Your task to perform on an android device: What's the weather going to be tomorrow? Image 0: 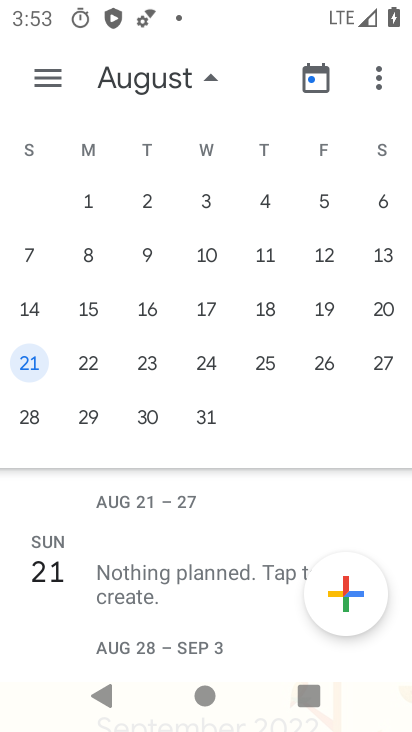
Step 0: press home button
Your task to perform on an android device: What's the weather going to be tomorrow? Image 1: 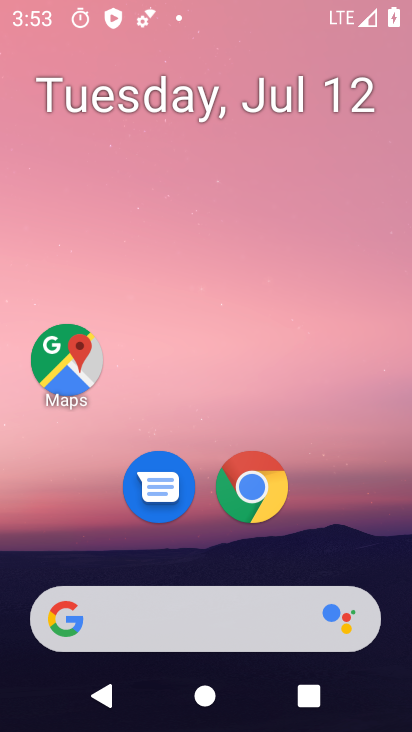
Step 1: drag from (216, 635) to (222, 172)
Your task to perform on an android device: What's the weather going to be tomorrow? Image 2: 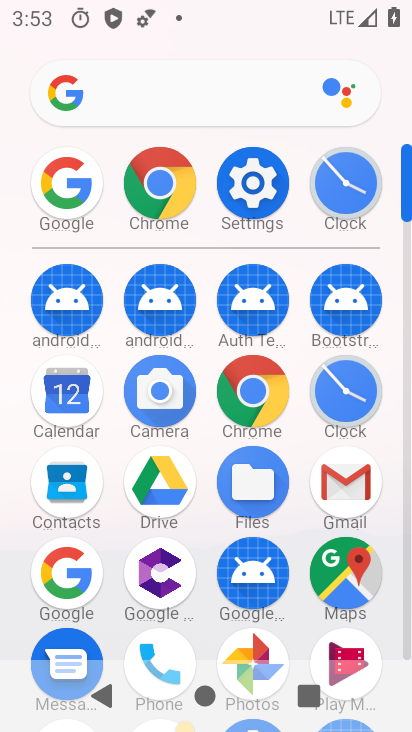
Step 2: drag from (197, 499) to (239, 188)
Your task to perform on an android device: What's the weather going to be tomorrow? Image 3: 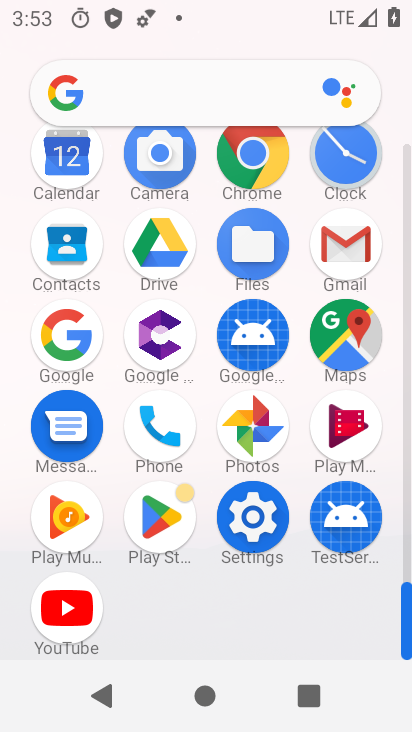
Step 3: drag from (204, 464) to (210, 201)
Your task to perform on an android device: What's the weather going to be tomorrow? Image 4: 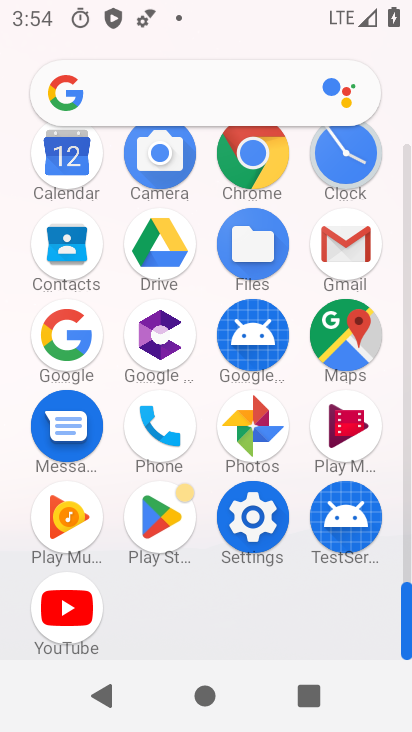
Step 4: drag from (224, 287) to (174, 534)
Your task to perform on an android device: What's the weather going to be tomorrow? Image 5: 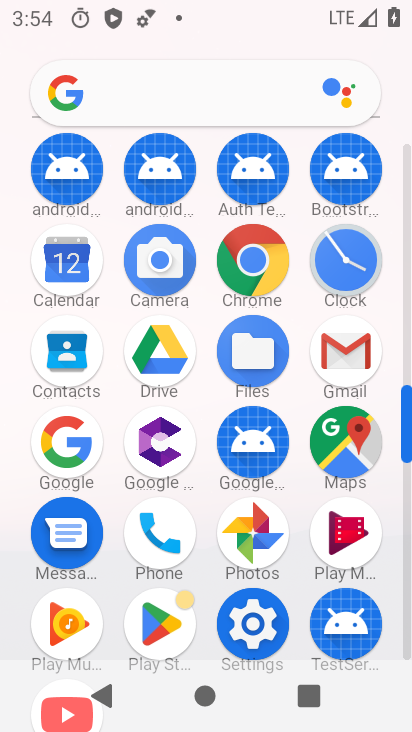
Step 5: drag from (207, 435) to (208, 116)
Your task to perform on an android device: What's the weather going to be tomorrow? Image 6: 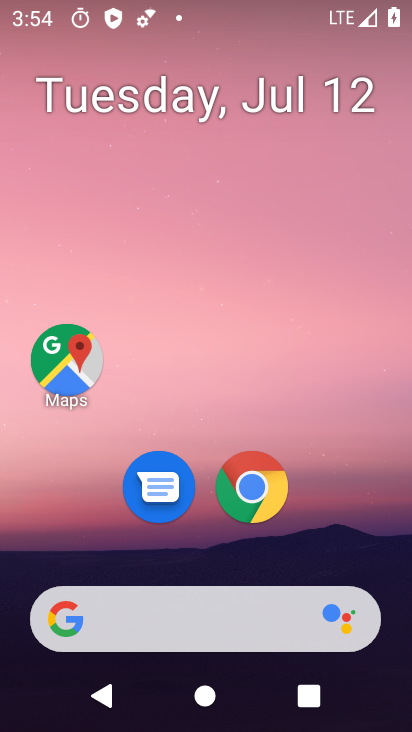
Step 6: drag from (206, 593) to (233, 102)
Your task to perform on an android device: What's the weather going to be tomorrow? Image 7: 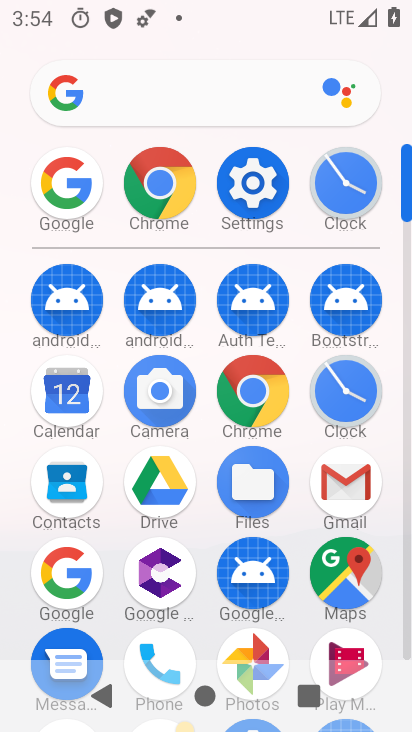
Step 7: drag from (203, 365) to (232, 134)
Your task to perform on an android device: What's the weather going to be tomorrow? Image 8: 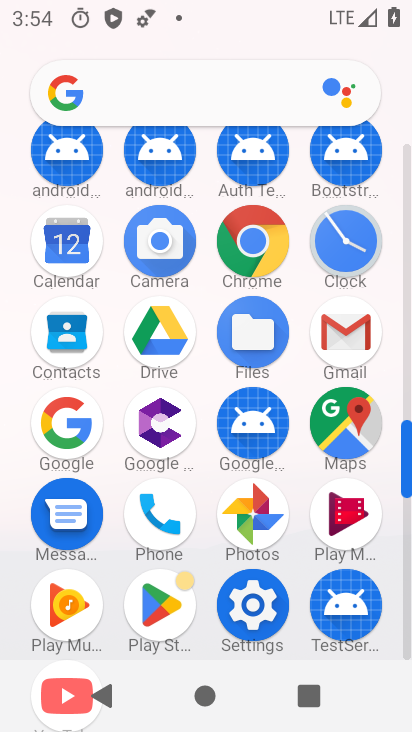
Step 8: drag from (171, 482) to (191, 133)
Your task to perform on an android device: What's the weather going to be tomorrow? Image 9: 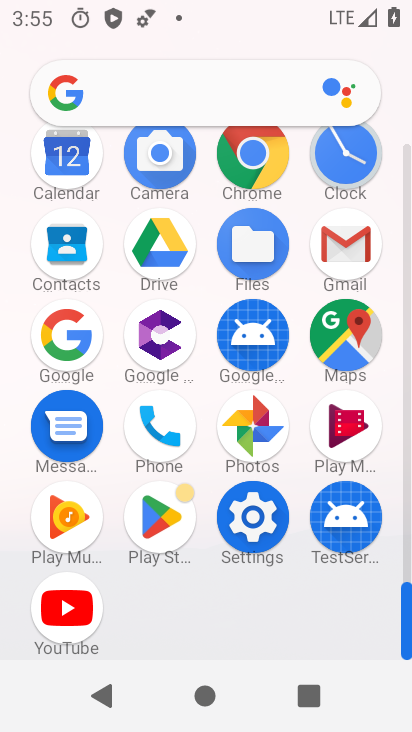
Step 9: drag from (159, 529) to (208, 232)
Your task to perform on an android device: What's the weather going to be tomorrow? Image 10: 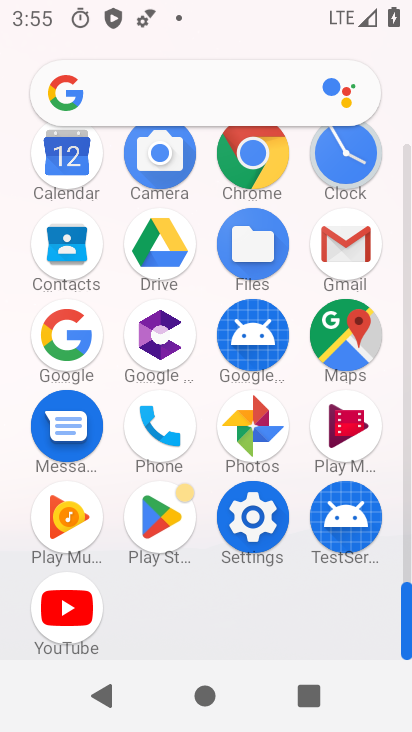
Step 10: drag from (188, 331) to (121, 540)
Your task to perform on an android device: What's the weather going to be tomorrow? Image 11: 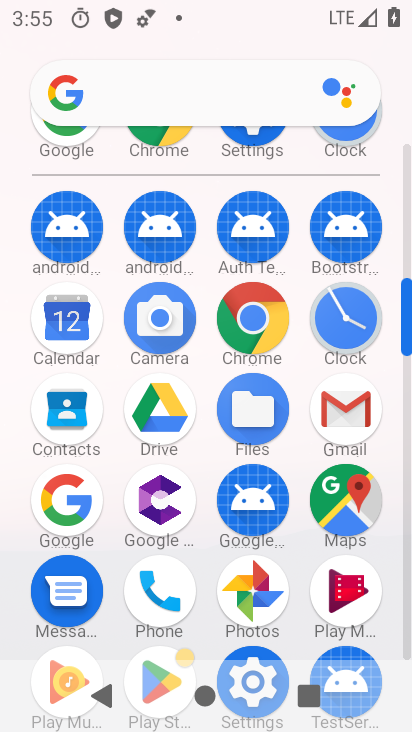
Step 11: drag from (202, 360) to (158, 556)
Your task to perform on an android device: What's the weather going to be tomorrow? Image 12: 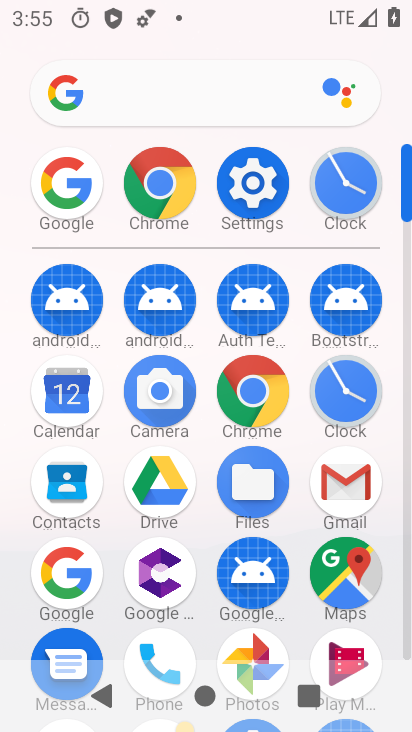
Step 12: click (60, 575)
Your task to perform on an android device: What's the weather going to be tomorrow? Image 13: 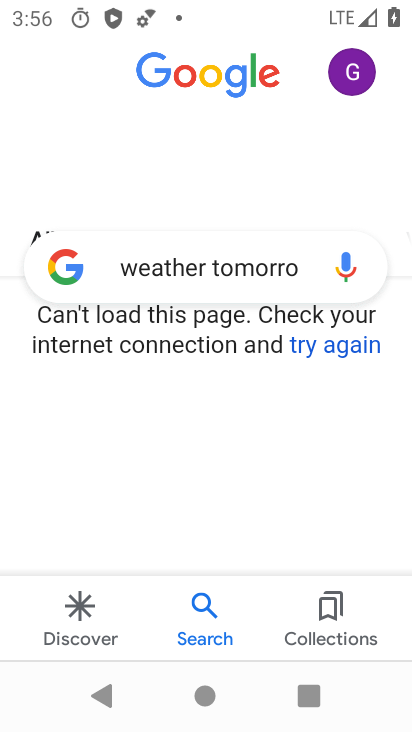
Step 13: click (293, 262)
Your task to perform on an android device: What's the weather going to be tomorrow? Image 14: 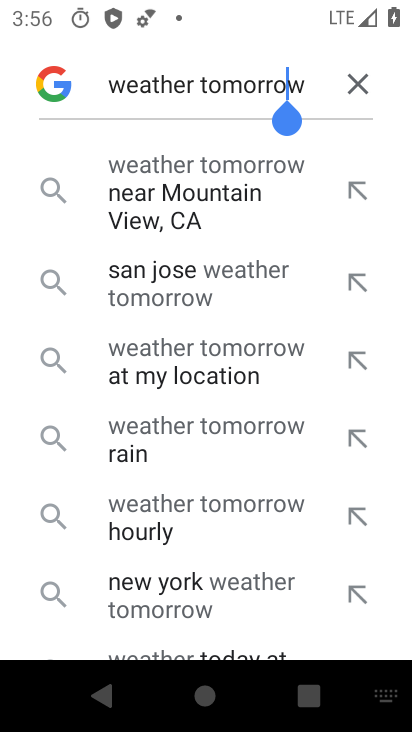
Step 14: click (260, 185)
Your task to perform on an android device: What's the weather going to be tomorrow? Image 15: 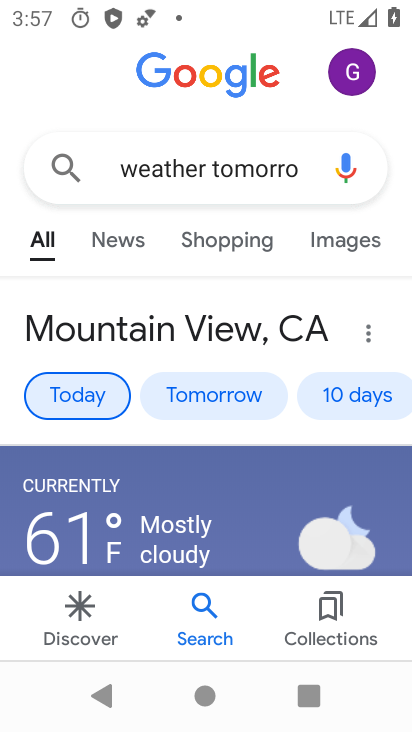
Step 15: task complete